Your task to perform on an android device: Open Google Maps and go to "Timeline" Image 0: 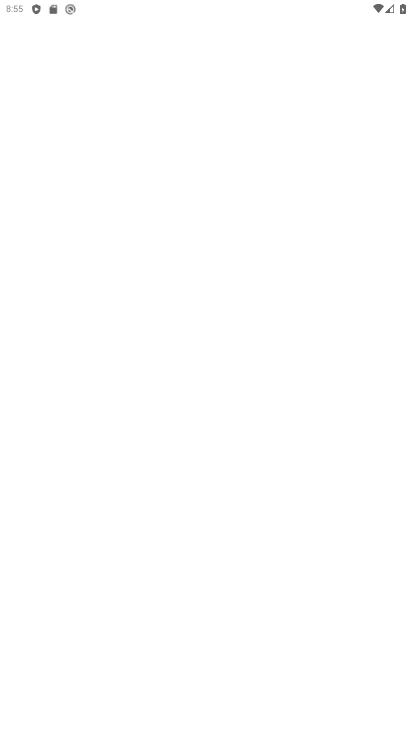
Step 0: drag from (175, 672) to (194, 342)
Your task to perform on an android device: Open Google Maps and go to "Timeline" Image 1: 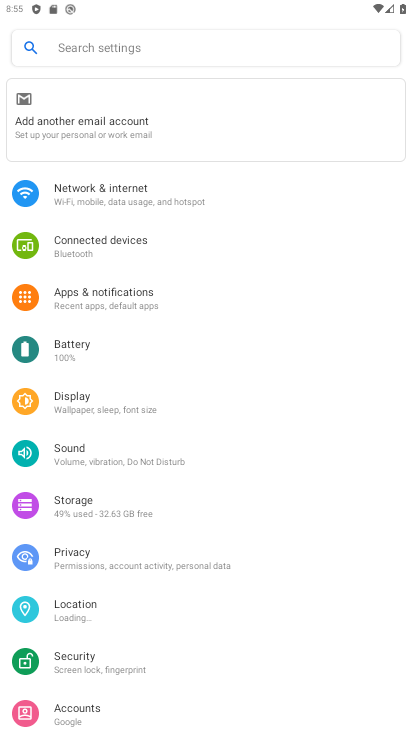
Step 1: press home button
Your task to perform on an android device: Open Google Maps and go to "Timeline" Image 2: 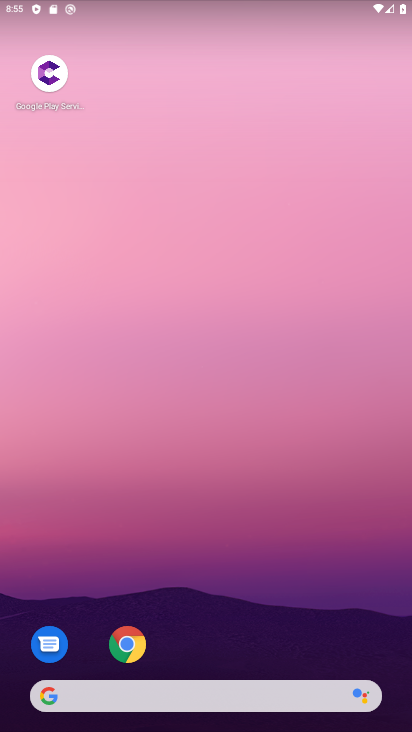
Step 2: drag from (199, 675) to (160, 14)
Your task to perform on an android device: Open Google Maps and go to "Timeline" Image 3: 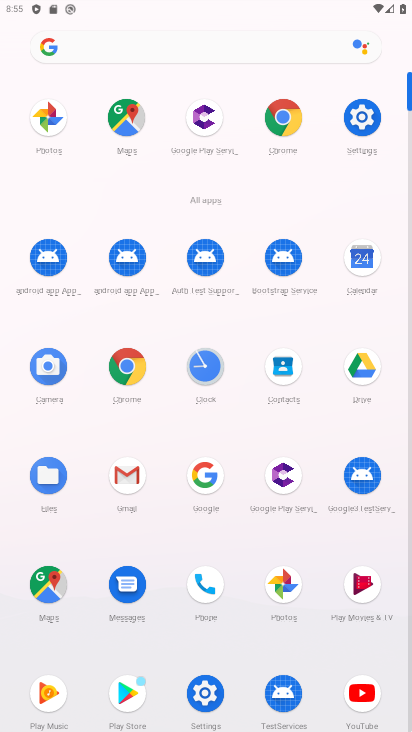
Step 3: click (59, 592)
Your task to perform on an android device: Open Google Maps and go to "Timeline" Image 4: 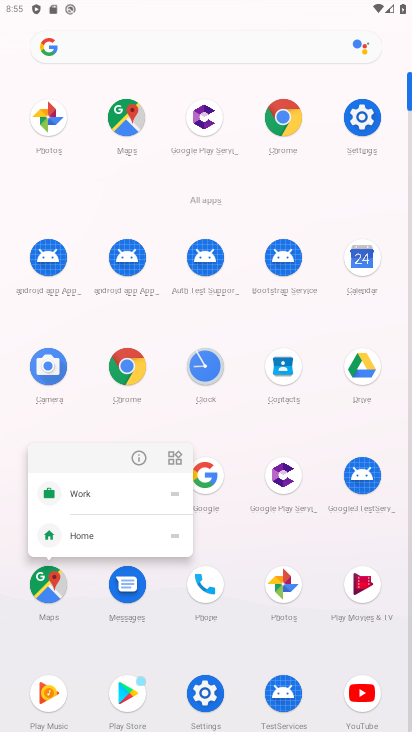
Step 4: click (44, 592)
Your task to perform on an android device: Open Google Maps and go to "Timeline" Image 5: 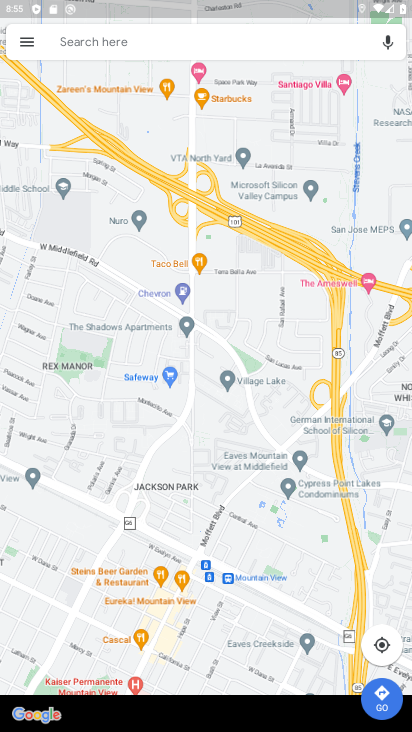
Step 5: click (22, 45)
Your task to perform on an android device: Open Google Maps and go to "Timeline" Image 6: 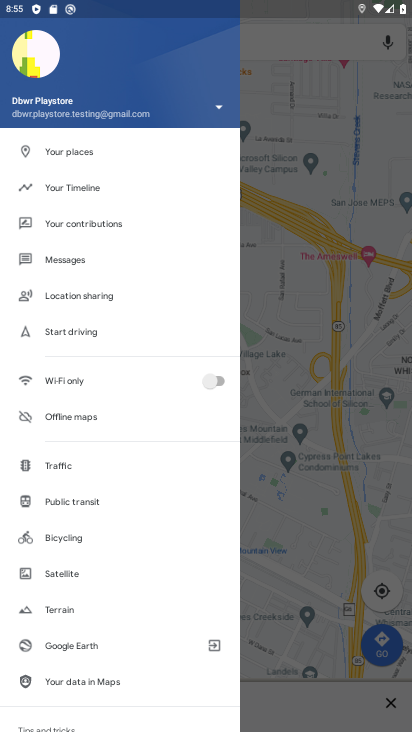
Step 6: click (54, 191)
Your task to perform on an android device: Open Google Maps and go to "Timeline" Image 7: 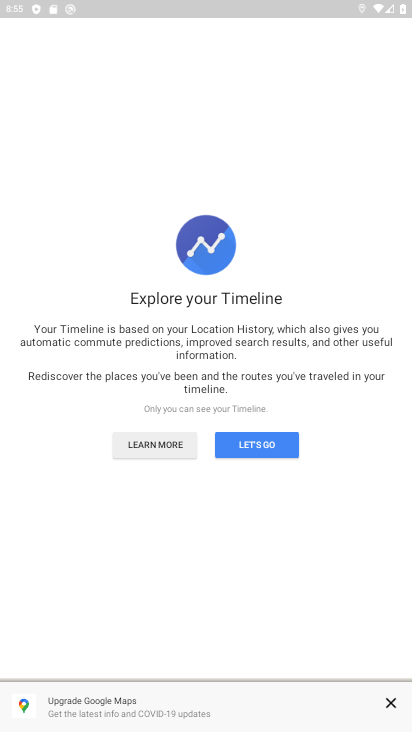
Step 7: click (258, 438)
Your task to perform on an android device: Open Google Maps and go to "Timeline" Image 8: 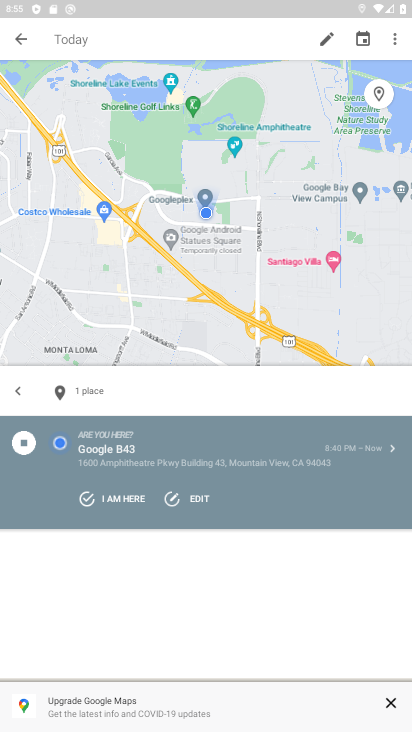
Step 8: task complete